Your task to perform on an android device: change the clock display to analog Image 0: 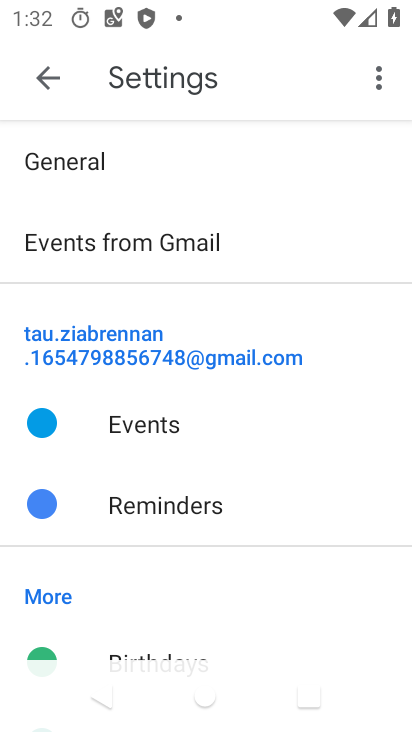
Step 0: press home button
Your task to perform on an android device: change the clock display to analog Image 1: 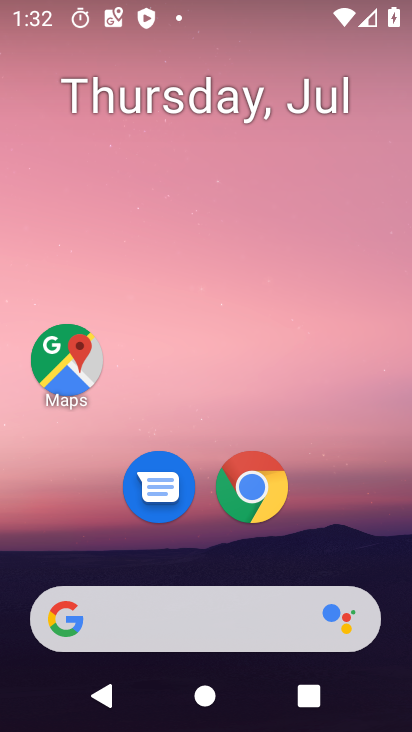
Step 1: drag from (217, 580) to (321, 73)
Your task to perform on an android device: change the clock display to analog Image 2: 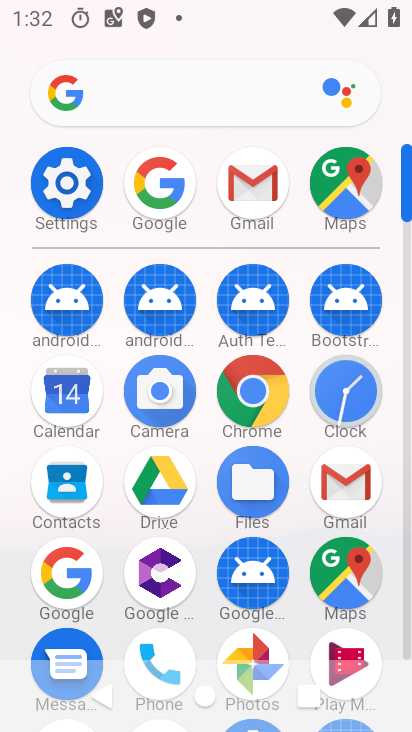
Step 2: click (349, 405)
Your task to perform on an android device: change the clock display to analog Image 3: 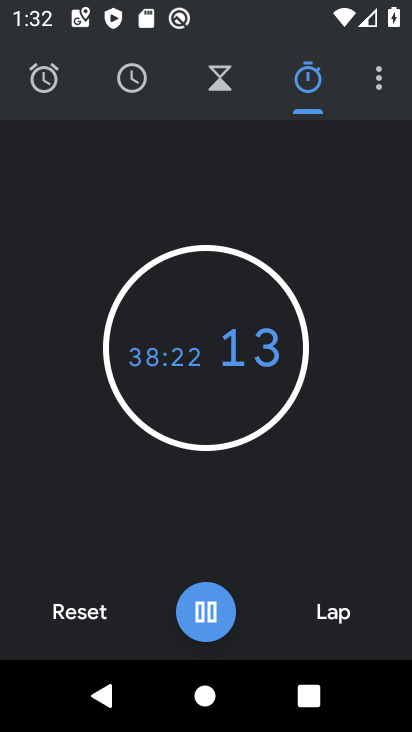
Step 3: click (382, 79)
Your task to perform on an android device: change the clock display to analog Image 4: 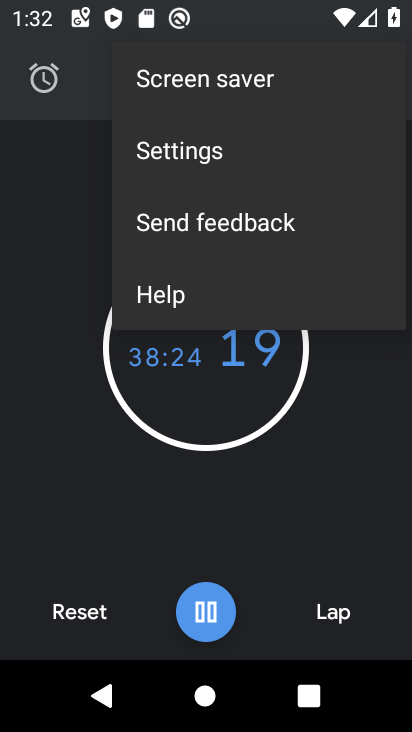
Step 4: click (191, 148)
Your task to perform on an android device: change the clock display to analog Image 5: 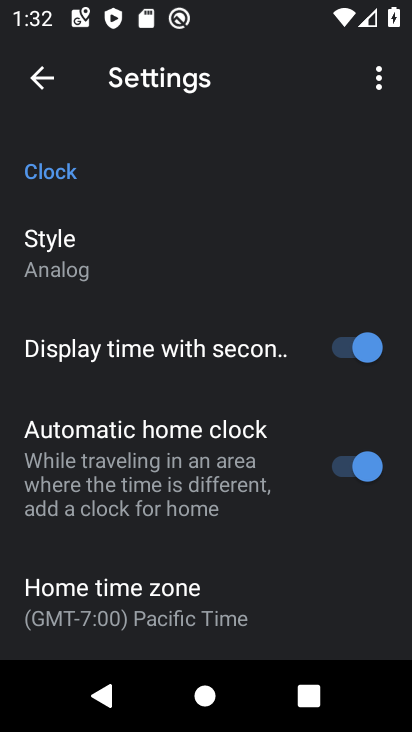
Step 5: click (93, 255)
Your task to perform on an android device: change the clock display to analog Image 6: 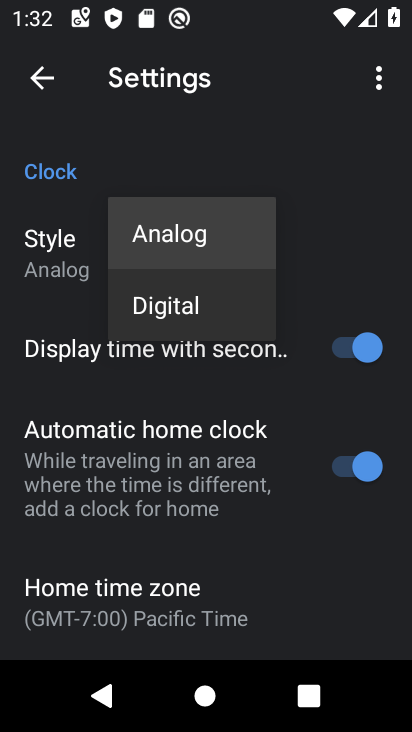
Step 6: task complete